Your task to perform on an android device: Go to notification settings Image 0: 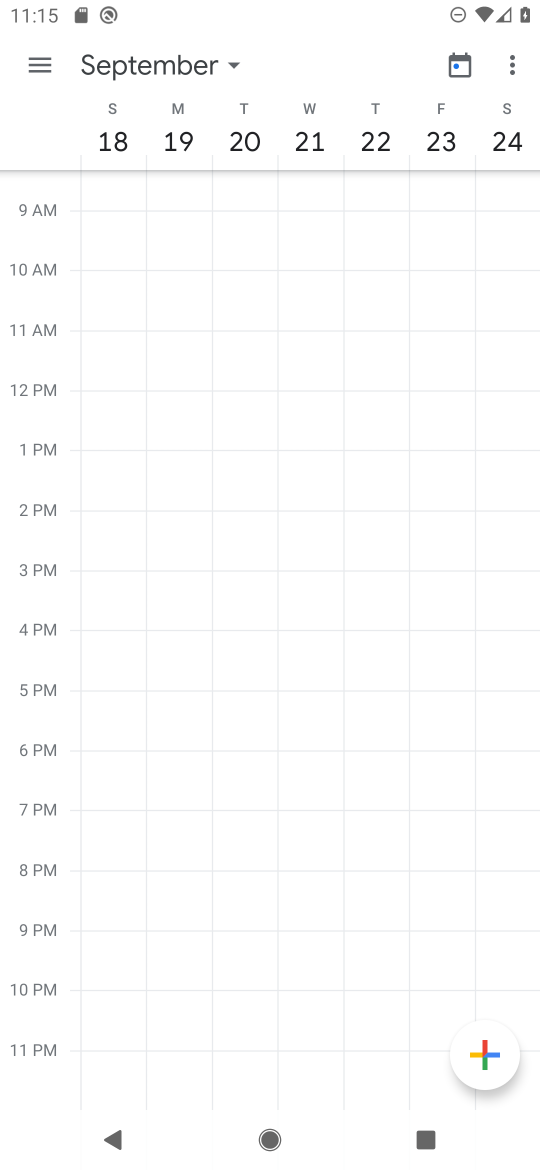
Step 0: press home button
Your task to perform on an android device: Go to notification settings Image 1: 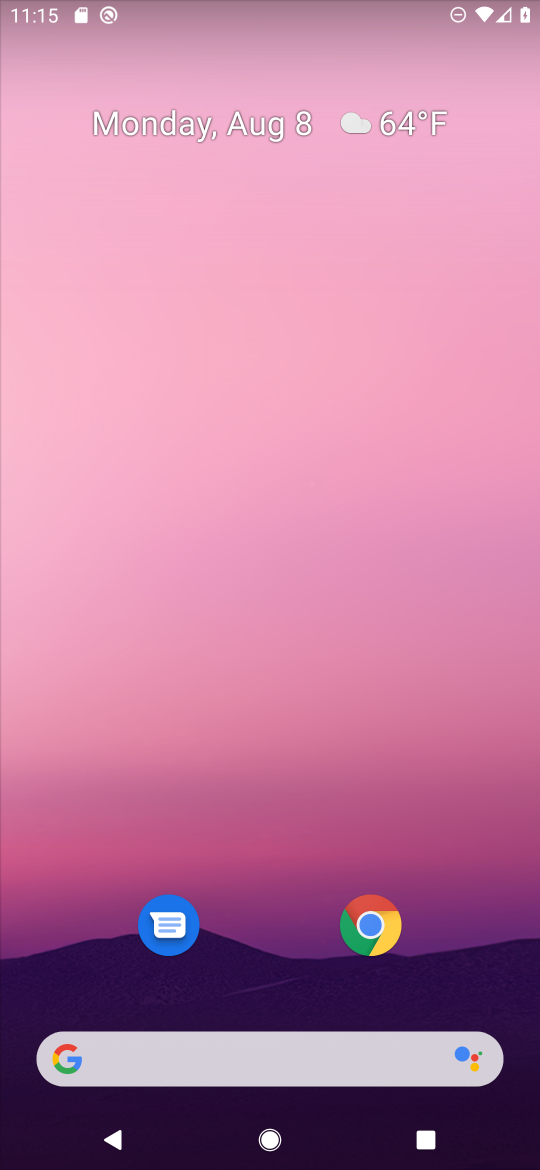
Step 1: drag from (248, 935) to (458, 126)
Your task to perform on an android device: Go to notification settings Image 2: 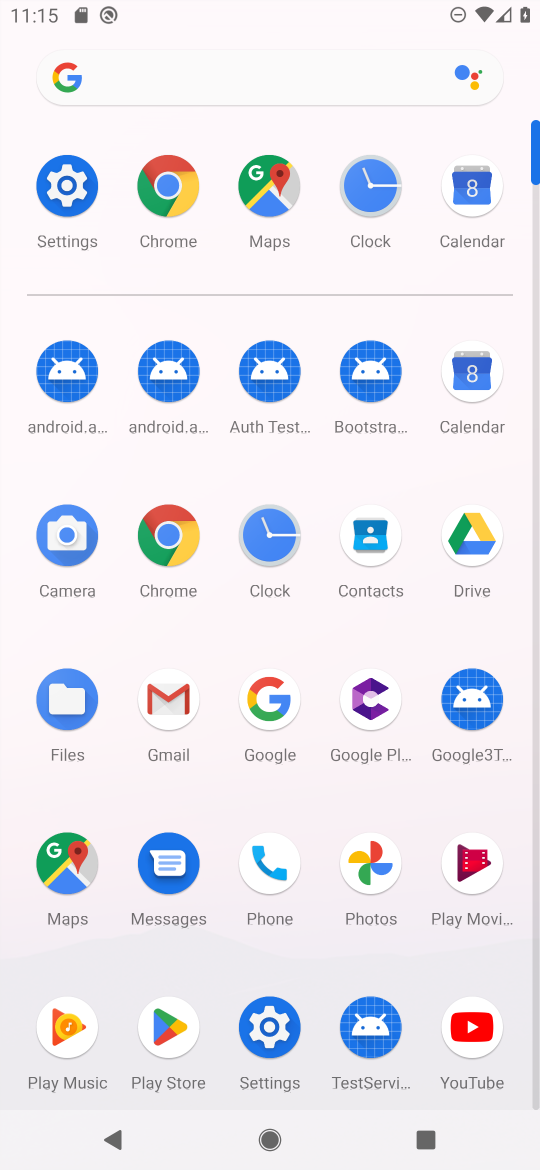
Step 2: click (277, 1033)
Your task to perform on an android device: Go to notification settings Image 3: 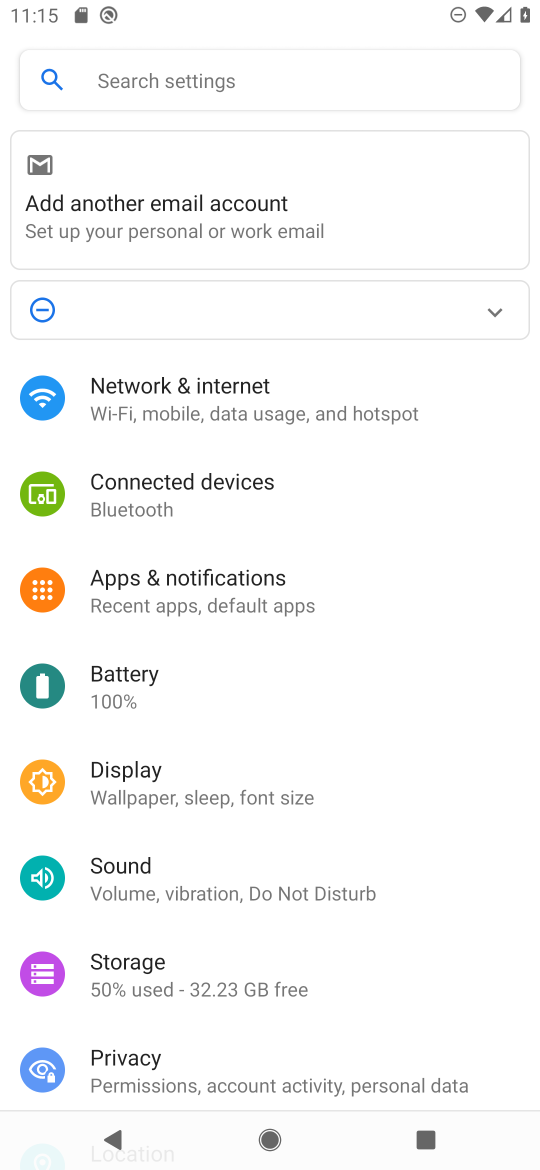
Step 3: click (206, 582)
Your task to perform on an android device: Go to notification settings Image 4: 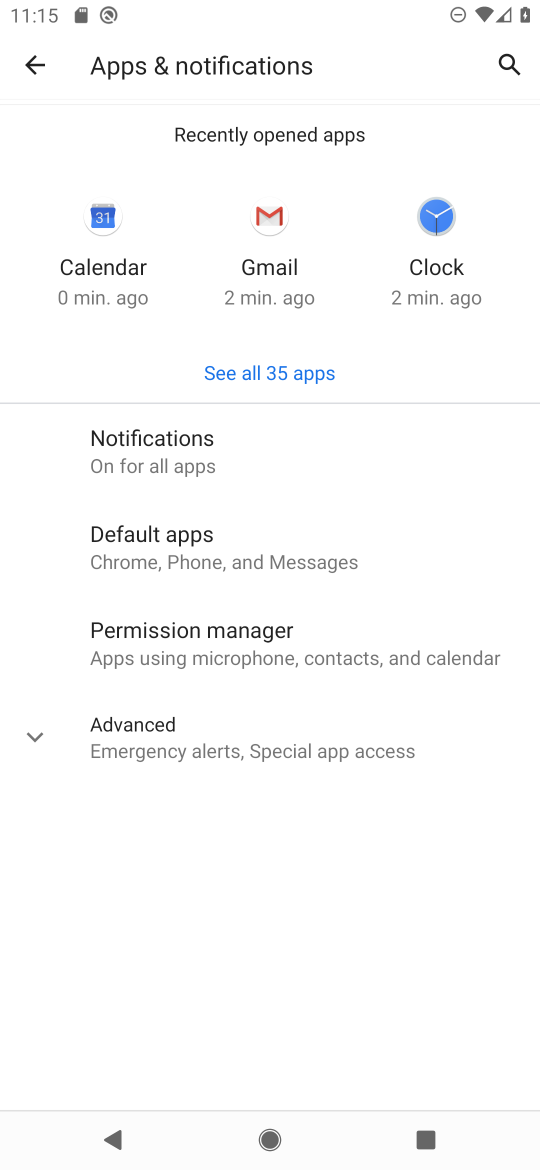
Step 4: click (186, 422)
Your task to perform on an android device: Go to notification settings Image 5: 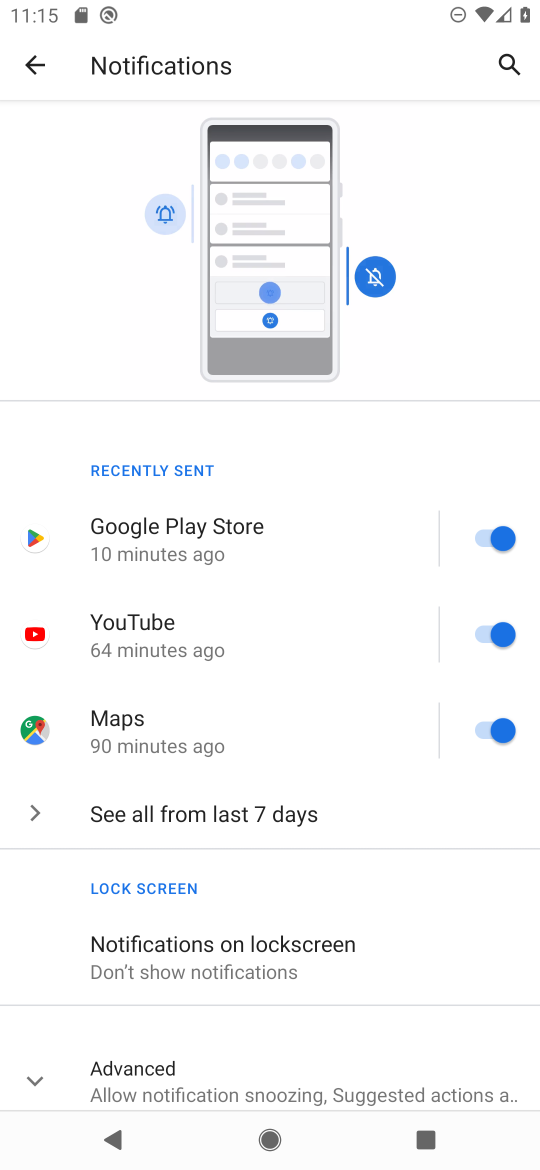
Step 5: task complete